Your task to perform on an android device: Open the web browser Image 0: 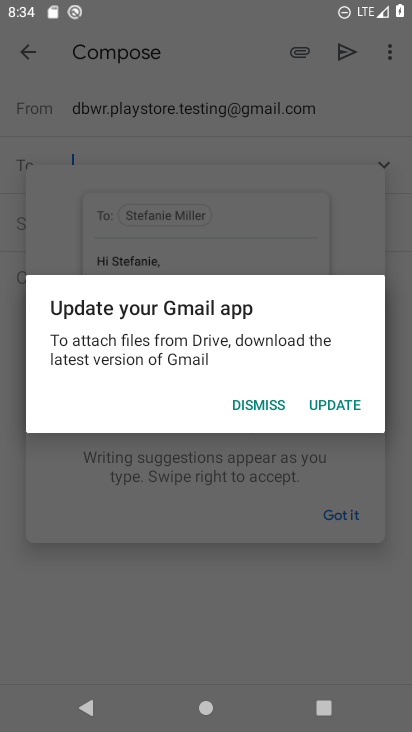
Step 0: press home button
Your task to perform on an android device: Open the web browser Image 1: 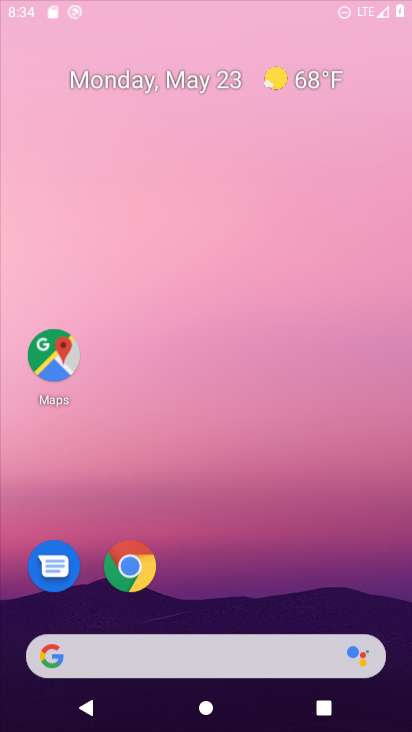
Step 1: drag from (253, 601) to (402, 149)
Your task to perform on an android device: Open the web browser Image 2: 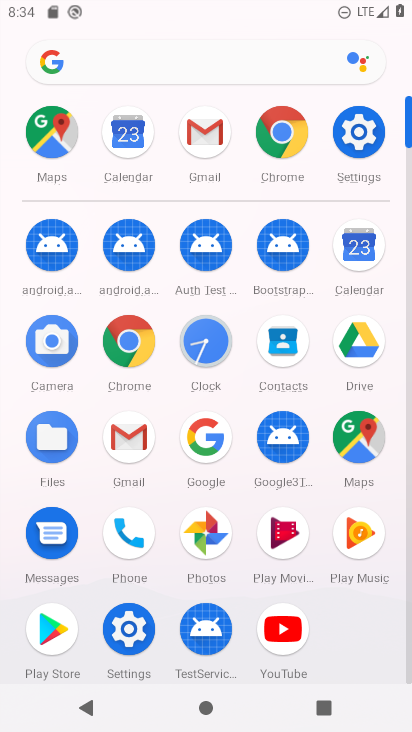
Step 2: click (124, 335)
Your task to perform on an android device: Open the web browser Image 3: 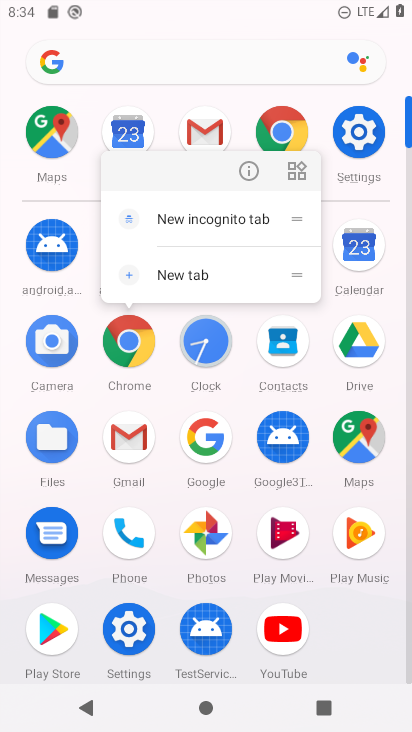
Step 3: click (243, 162)
Your task to perform on an android device: Open the web browser Image 4: 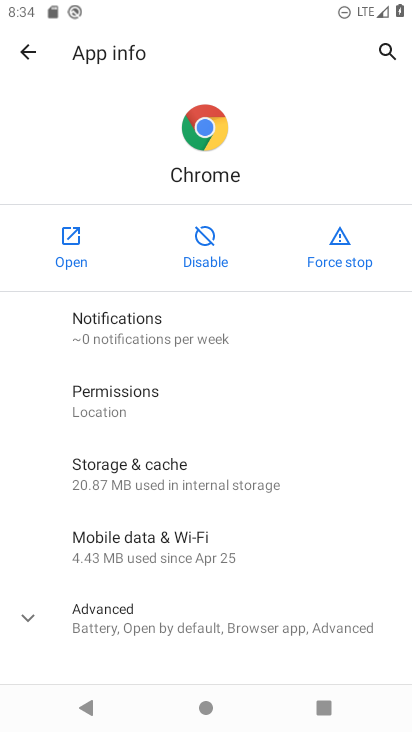
Step 4: click (75, 264)
Your task to perform on an android device: Open the web browser Image 5: 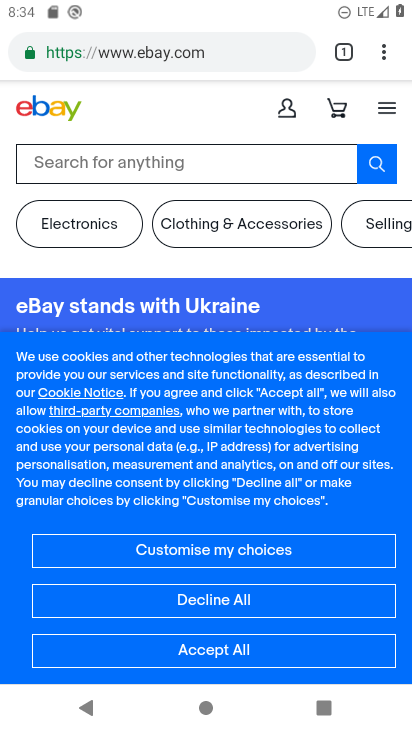
Step 5: task complete